Your task to perform on an android device: What is the recent news? Image 0: 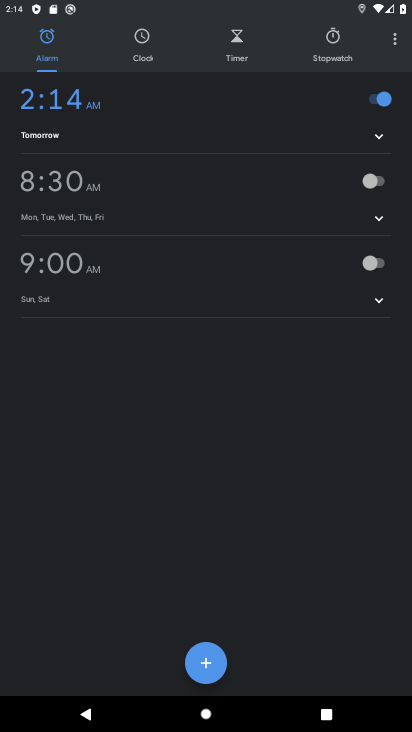
Step 0: press home button
Your task to perform on an android device: What is the recent news? Image 1: 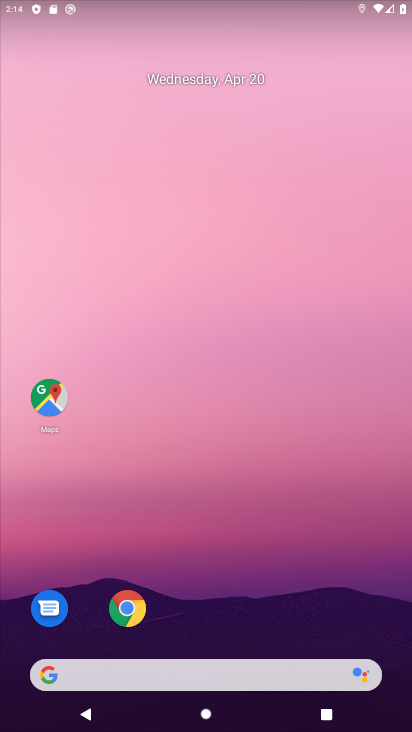
Step 1: drag from (362, 526) to (374, 162)
Your task to perform on an android device: What is the recent news? Image 2: 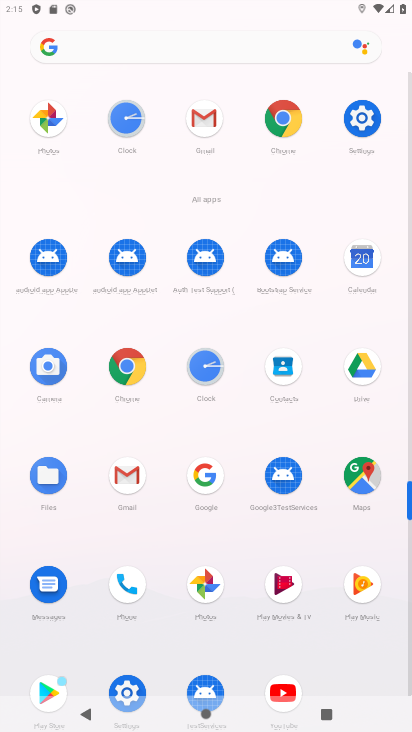
Step 2: click (134, 376)
Your task to perform on an android device: What is the recent news? Image 3: 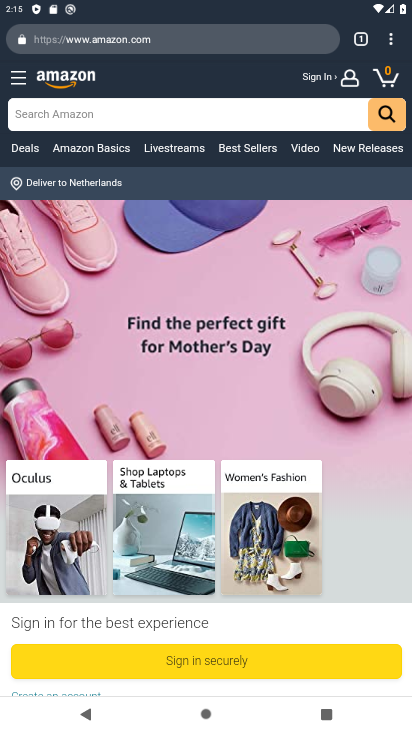
Step 3: click (159, 34)
Your task to perform on an android device: What is the recent news? Image 4: 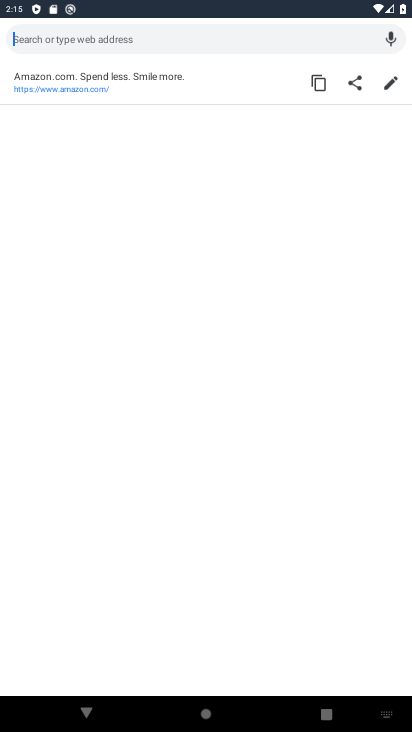
Step 4: type "recent news"
Your task to perform on an android device: What is the recent news? Image 5: 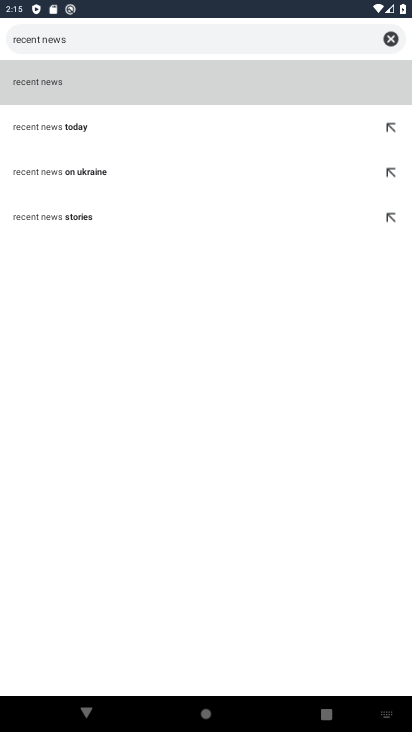
Step 5: click (118, 85)
Your task to perform on an android device: What is the recent news? Image 6: 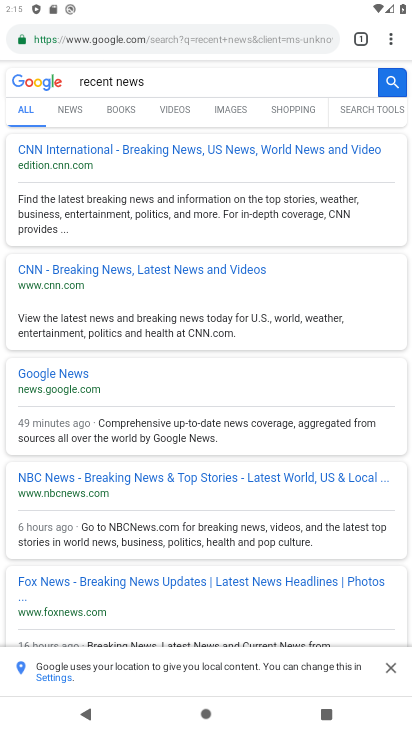
Step 6: click (99, 147)
Your task to perform on an android device: What is the recent news? Image 7: 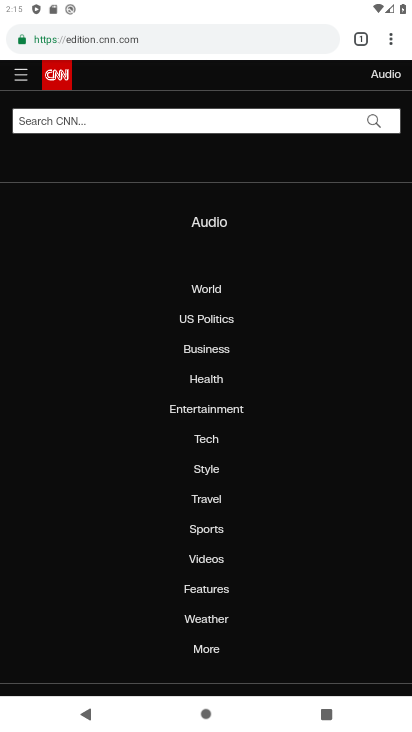
Step 7: task complete